Your task to perform on an android device: move an email to a new category in the gmail app Image 0: 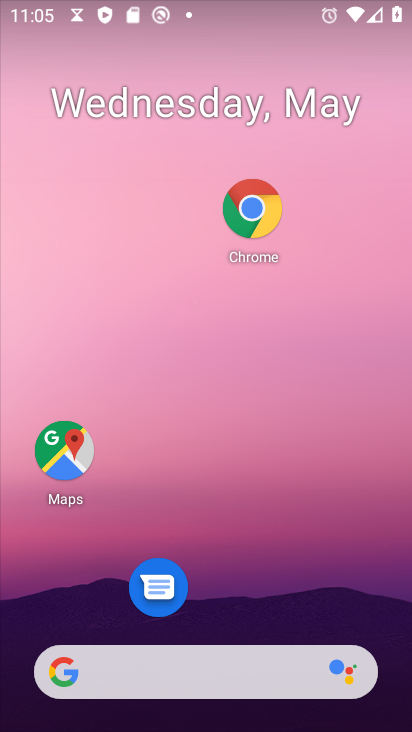
Step 0: drag from (218, 591) to (298, 66)
Your task to perform on an android device: move an email to a new category in the gmail app Image 1: 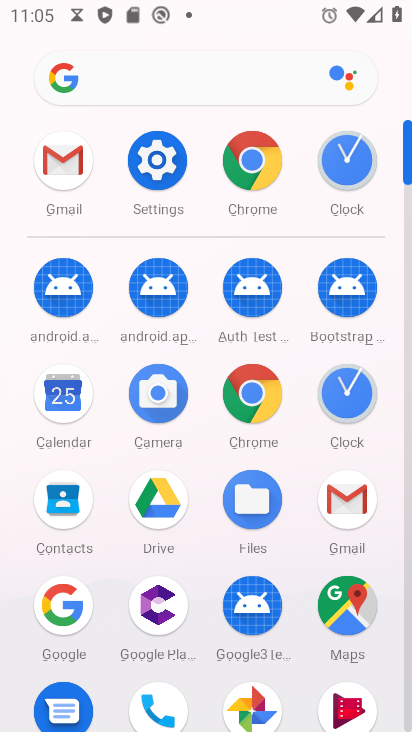
Step 1: click (341, 529)
Your task to perform on an android device: move an email to a new category in the gmail app Image 2: 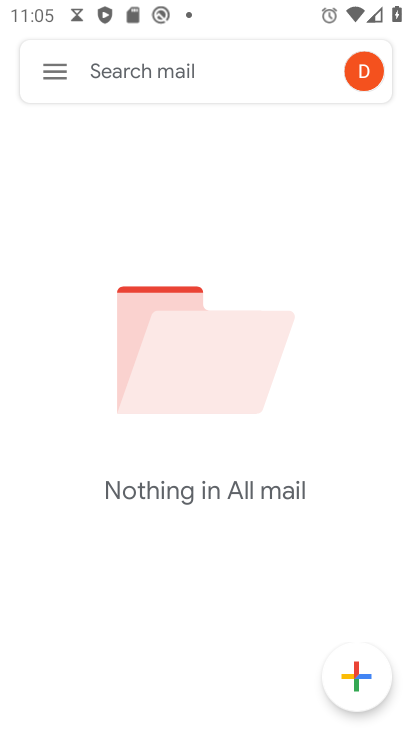
Step 2: task complete